Your task to perform on an android device: turn off smart reply in the gmail app Image 0: 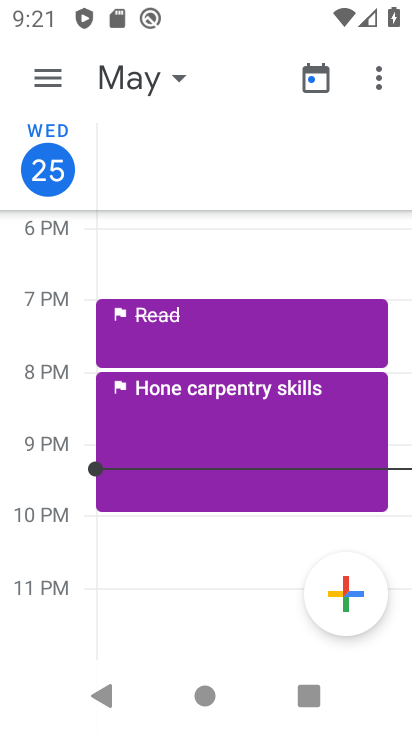
Step 0: press home button
Your task to perform on an android device: turn off smart reply in the gmail app Image 1: 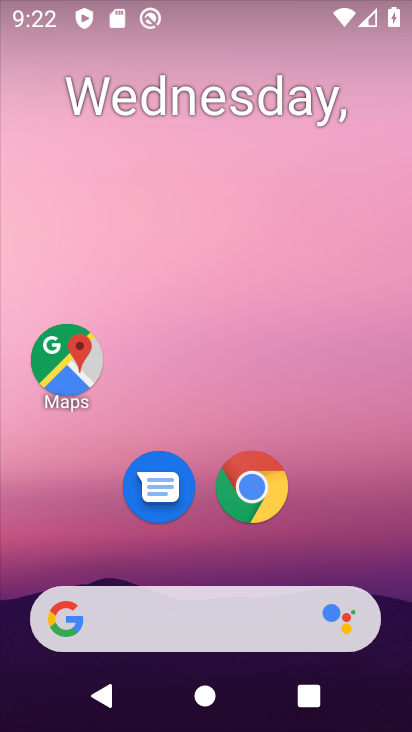
Step 1: drag from (262, 567) to (249, 56)
Your task to perform on an android device: turn off smart reply in the gmail app Image 2: 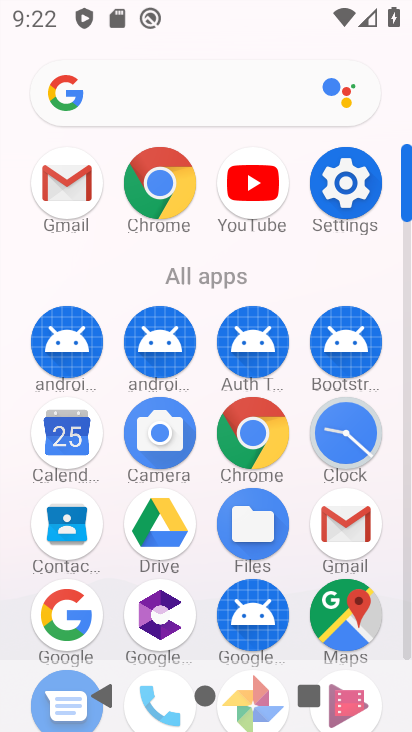
Step 2: click (71, 190)
Your task to perform on an android device: turn off smart reply in the gmail app Image 3: 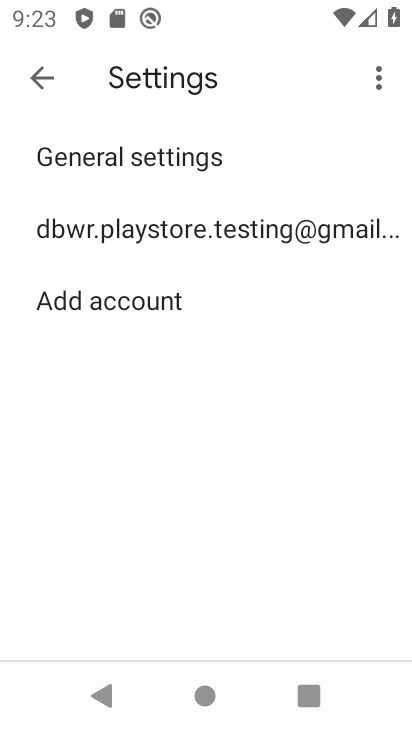
Step 3: click (232, 235)
Your task to perform on an android device: turn off smart reply in the gmail app Image 4: 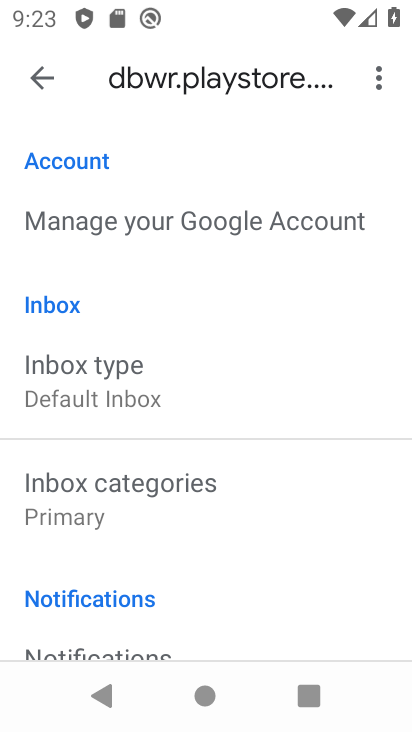
Step 4: drag from (228, 595) to (238, 46)
Your task to perform on an android device: turn off smart reply in the gmail app Image 5: 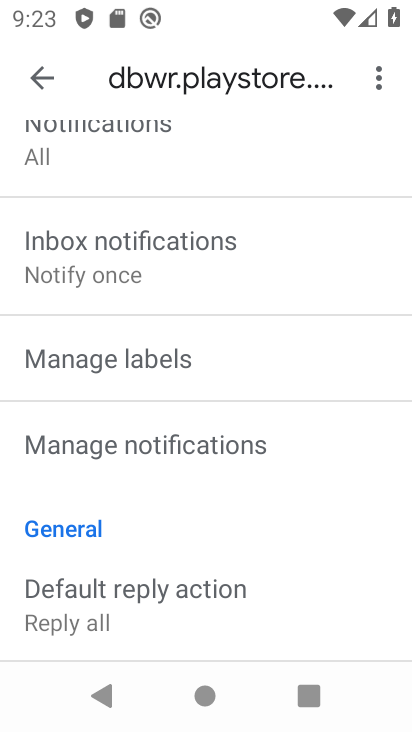
Step 5: drag from (314, 502) to (362, 72)
Your task to perform on an android device: turn off smart reply in the gmail app Image 6: 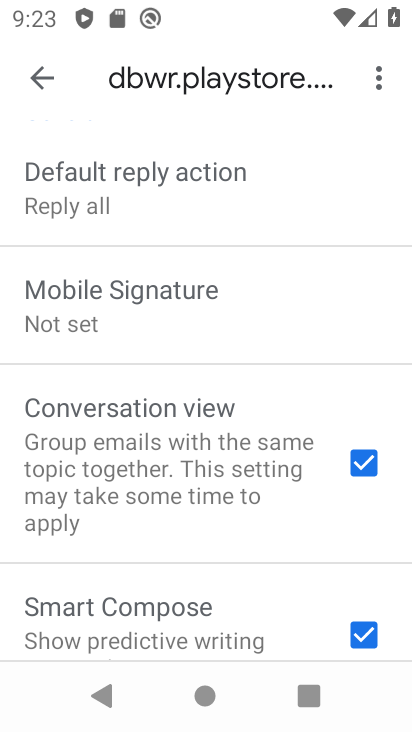
Step 6: drag from (325, 520) to (325, 256)
Your task to perform on an android device: turn off smart reply in the gmail app Image 7: 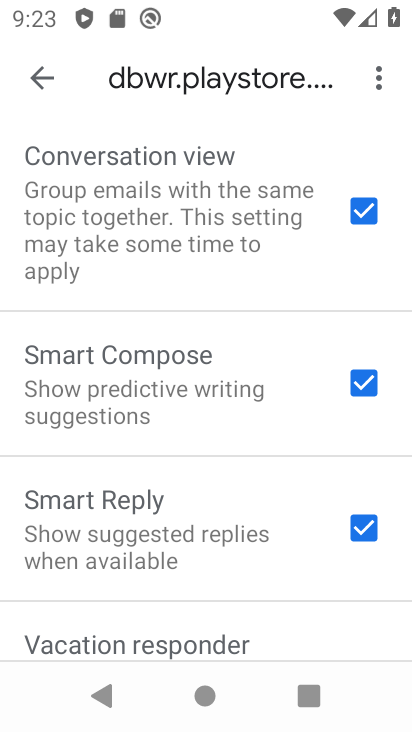
Step 7: click (373, 529)
Your task to perform on an android device: turn off smart reply in the gmail app Image 8: 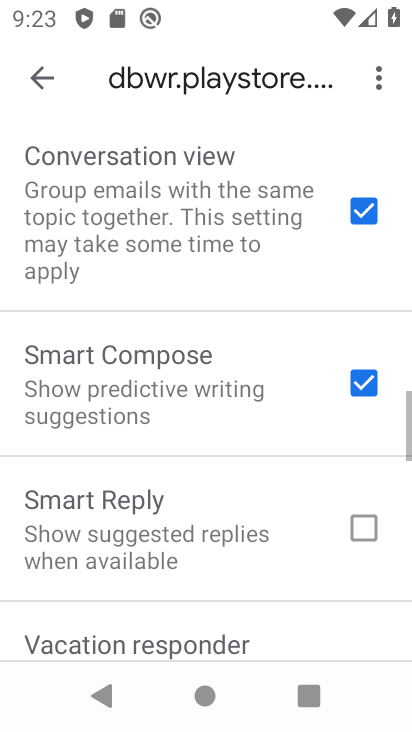
Step 8: task complete